Your task to perform on an android device: Open Yahoo.com Image 0: 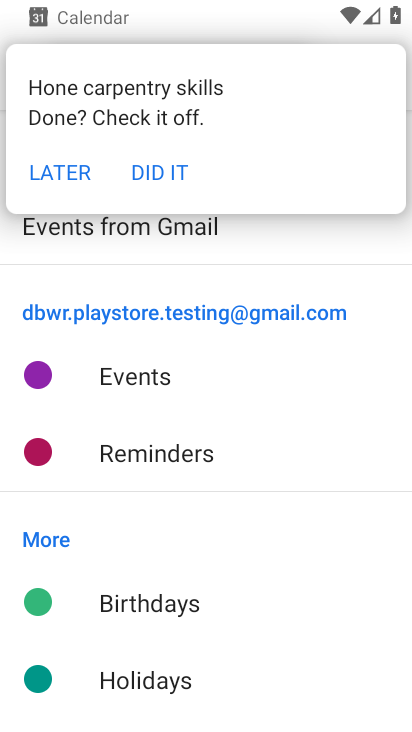
Step 0: click (83, 170)
Your task to perform on an android device: Open Yahoo.com Image 1: 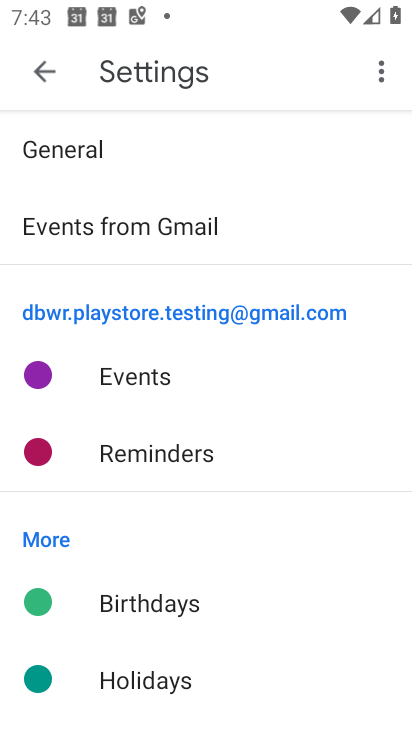
Step 1: press home button
Your task to perform on an android device: Open Yahoo.com Image 2: 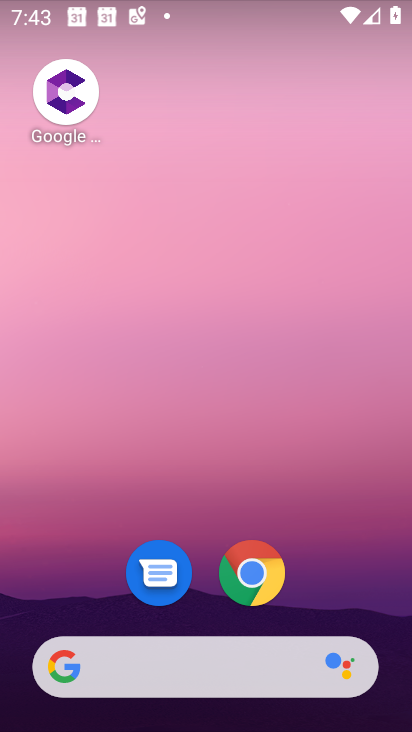
Step 2: click (245, 580)
Your task to perform on an android device: Open Yahoo.com Image 3: 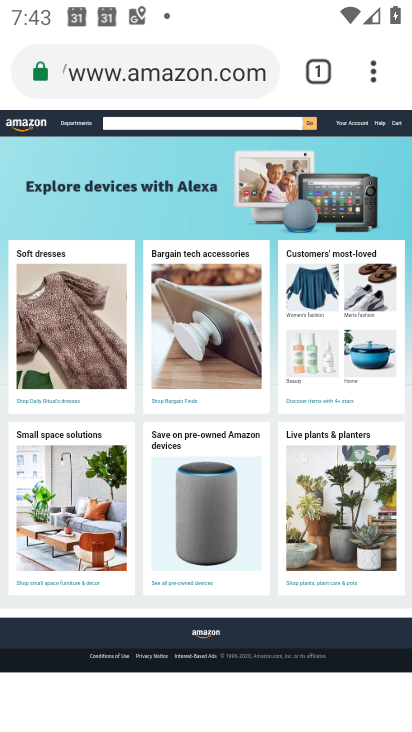
Step 3: click (89, 67)
Your task to perform on an android device: Open Yahoo.com Image 4: 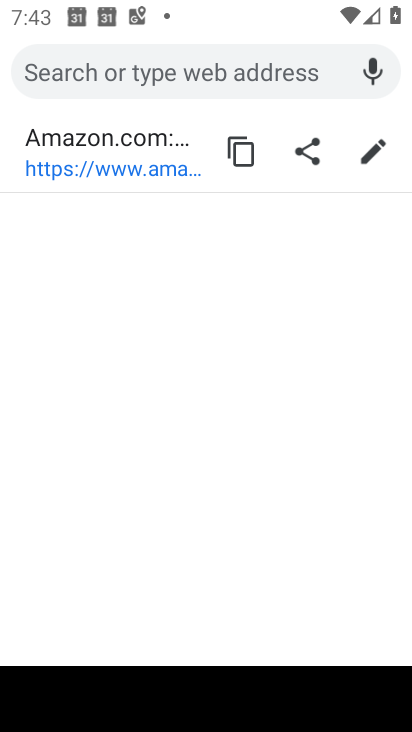
Step 4: type "yahoo.com"
Your task to perform on an android device: Open Yahoo.com Image 5: 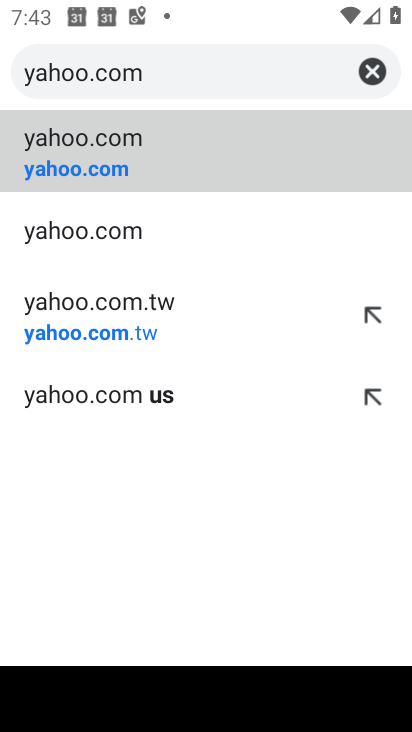
Step 5: click (125, 172)
Your task to perform on an android device: Open Yahoo.com Image 6: 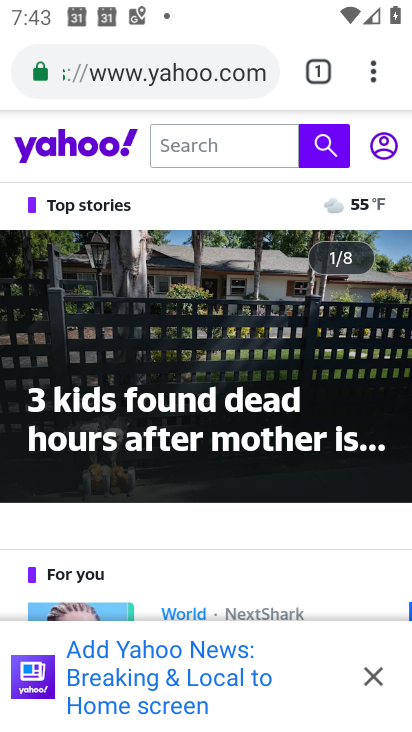
Step 6: task complete